Your task to perform on an android device: Go to Google maps Image 0: 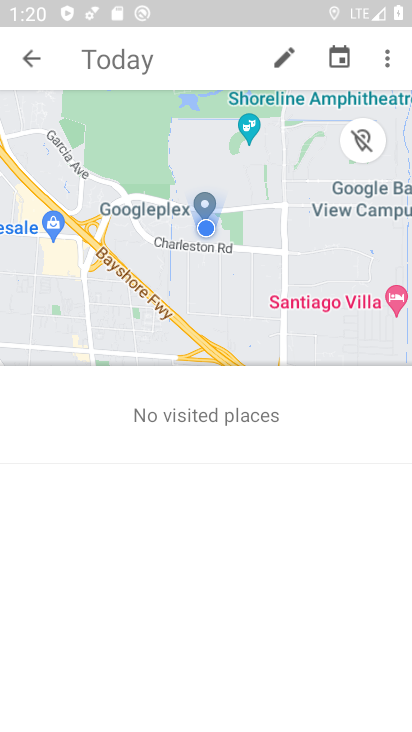
Step 0: press back button
Your task to perform on an android device: Go to Google maps Image 1: 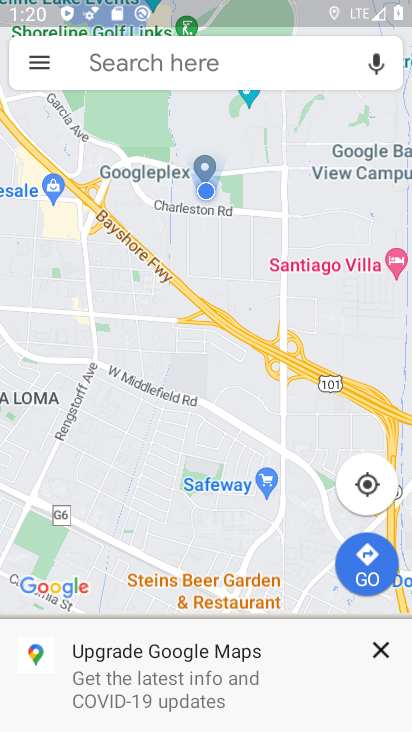
Step 1: task complete